Your task to perform on an android device: change the clock style Image 0: 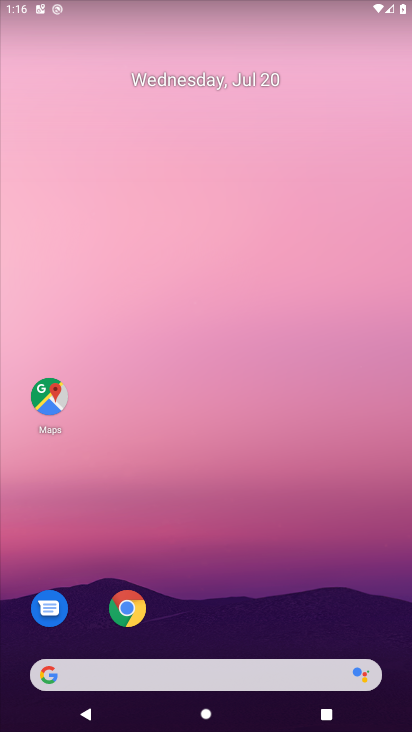
Step 0: drag from (179, 657) to (171, 272)
Your task to perform on an android device: change the clock style Image 1: 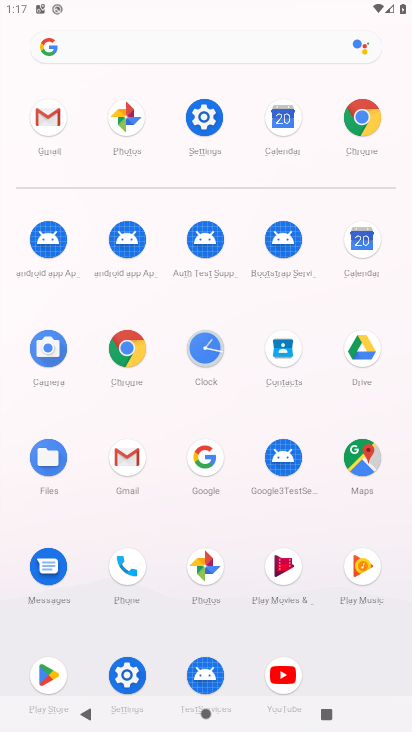
Step 1: click (199, 357)
Your task to perform on an android device: change the clock style Image 2: 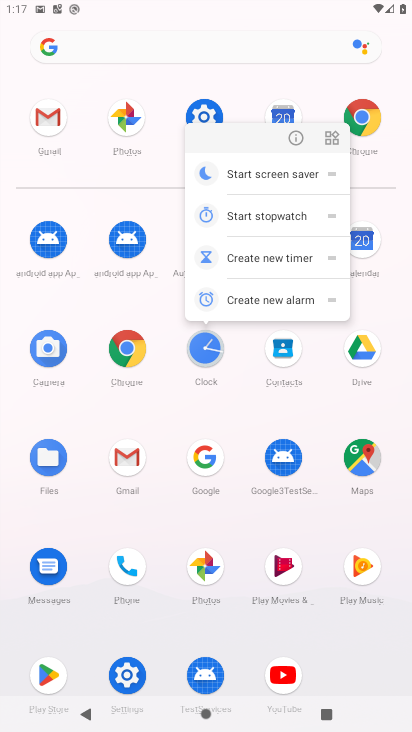
Step 2: click (203, 346)
Your task to perform on an android device: change the clock style Image 3: 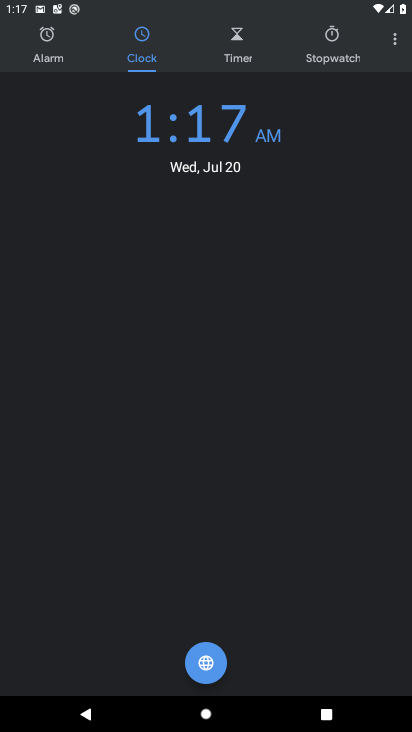
Step 3: click (388, 38)
Your task to perform on an android device: change the clock style Image 4: 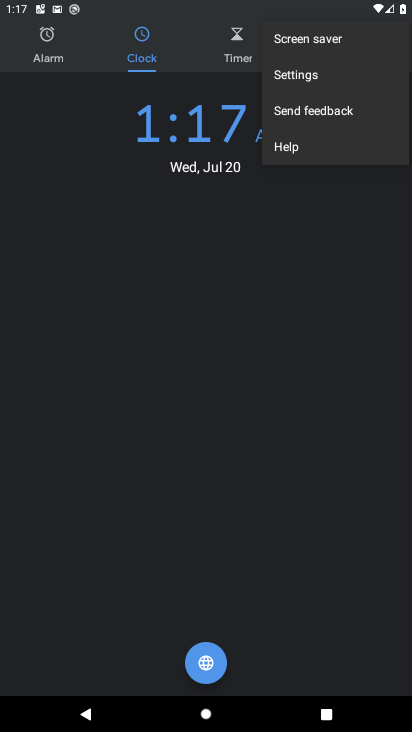
Step 4: click (286, 75)
Your task to perform on an android device: change the clock style Image 5: 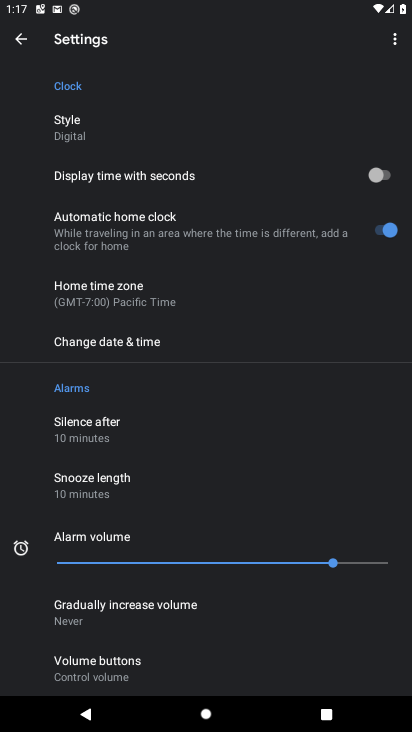
Step 5: click (58, 137)
Your task to perform on an android device: change the clock style Image 6: 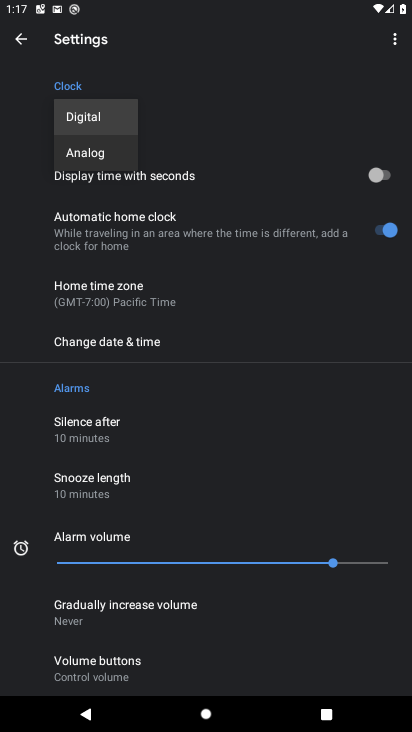
Step 6: click (89, 152)
Your task to perform on an android device: change the clock style Image 7: 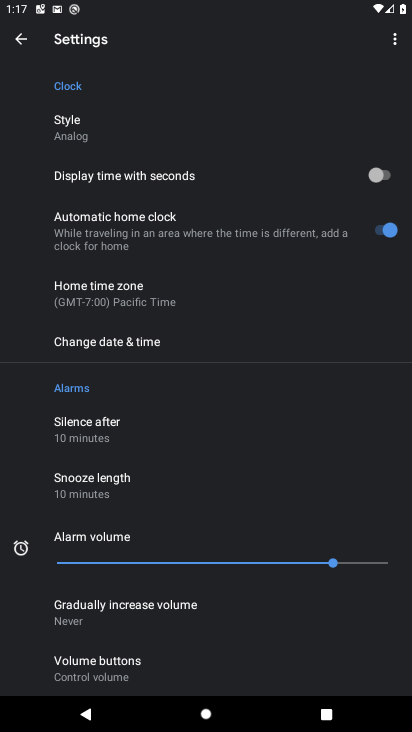
Step 7: task complete